Your task to perform on an android device: turn off notifications settings in the gmail app Image 0: 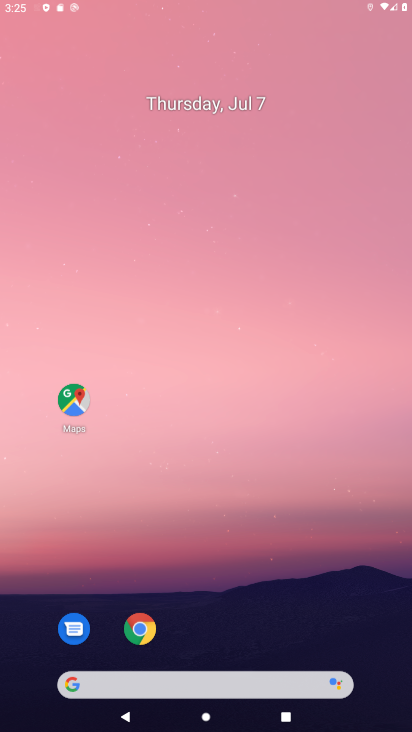
Step 0: press home button
Your task to perform on an android device: turn off notifications settings in the gmail app Image 1: 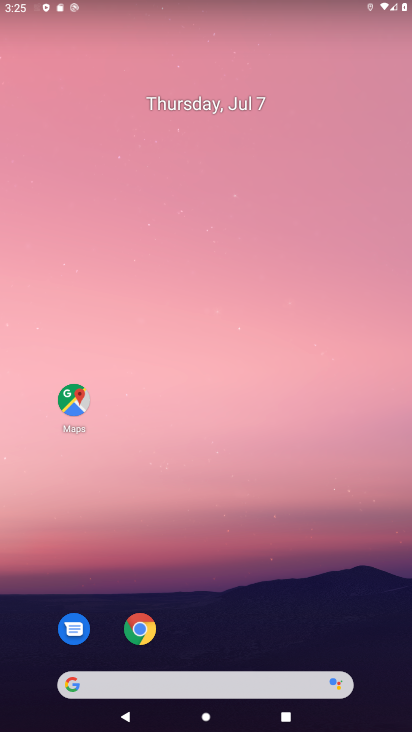
Step 1: drag from (223, 635) to (229, 95)
Your task to perform on an android device: turn off notifications settings in the gmail app Image 2: 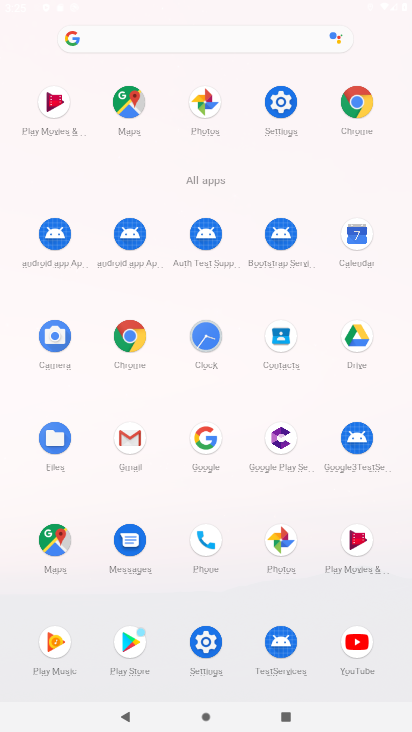
Step 2: click (127, 435)
Your task to perform on an android device: turn off notifications settings in the gmail app Image 3: 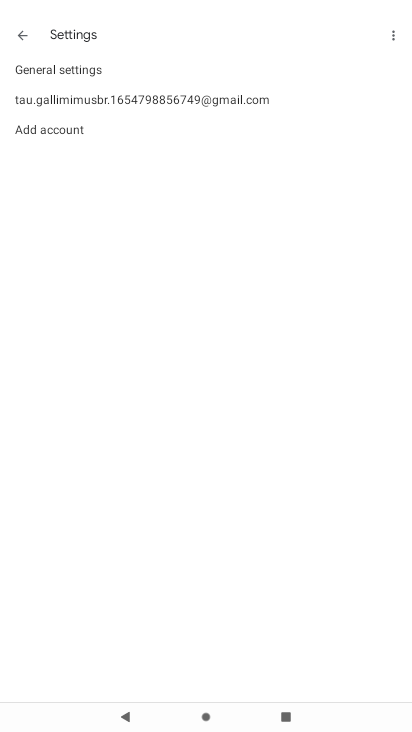
Step 3: click (57, 69)
Your task to perform on an android device: turn off notifications settings in the gmail app Image 4: 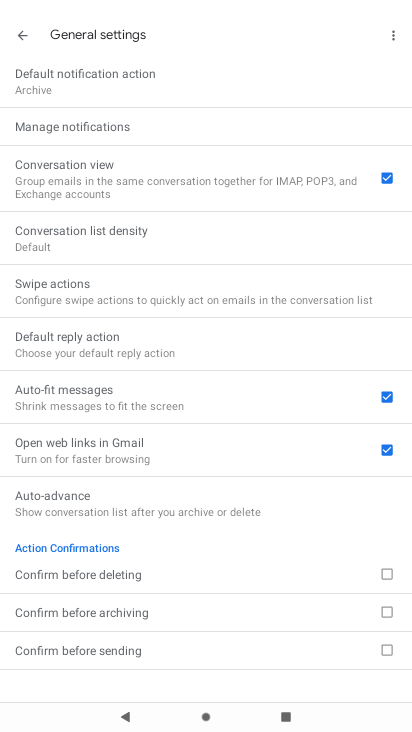
Step 4: click (76, 129)
Your task to perform on an android device: turn off notifications settings in the gmail app Image 5: 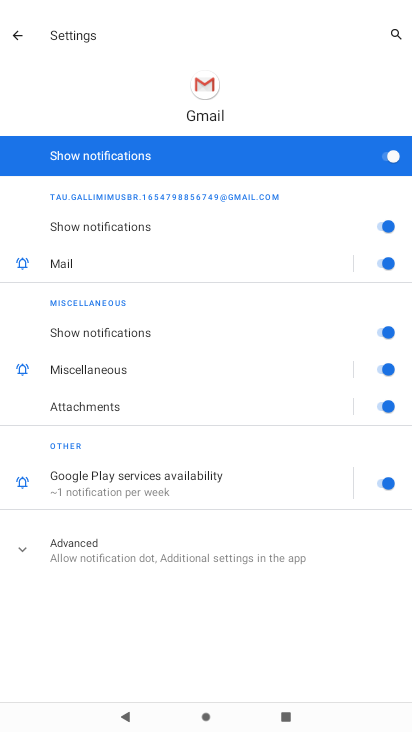
Step 5: click (397, 157)
Your task to perform on an android device: turn off notifications settings in the gmail app Image 6: 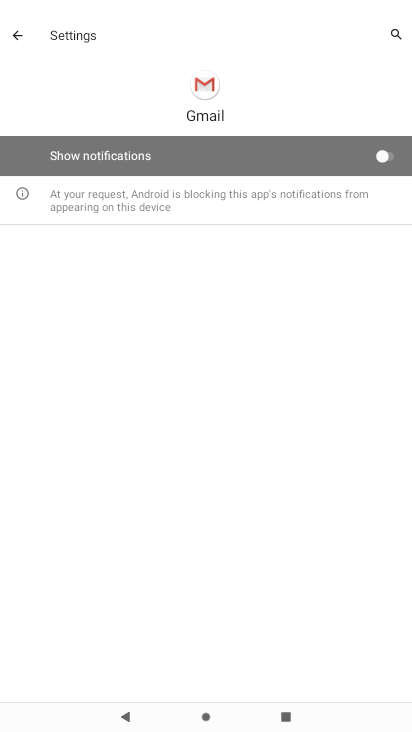
Step 6: task complete